Your task to perform on an android device: Show me popular games on the Play Store Image 0: 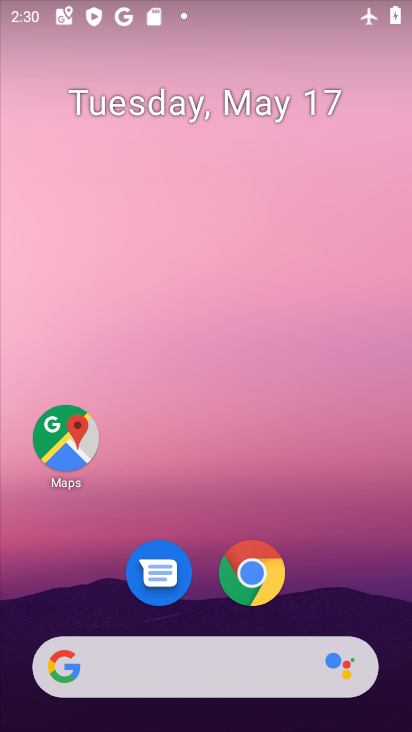
Step 0: drag from (346, 600) to (350, 102)
Your task to perform on an android device: Show me popular games on the Play Store Image 1: 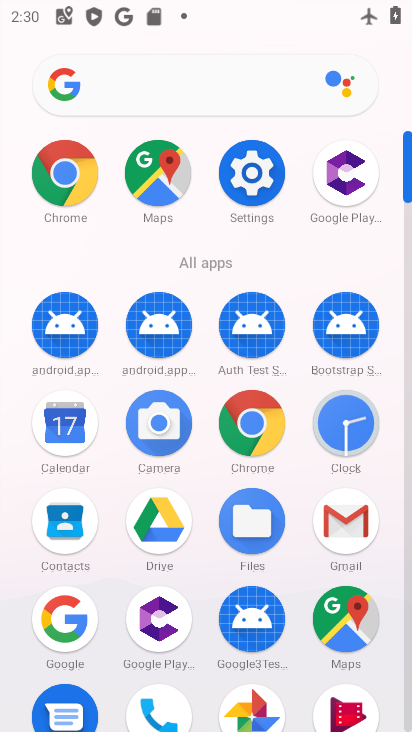
Step 1: drag from (212, 416) to (232, 238)
Your task to perform on an android device: Show me popular games on the Play Store Image 2: 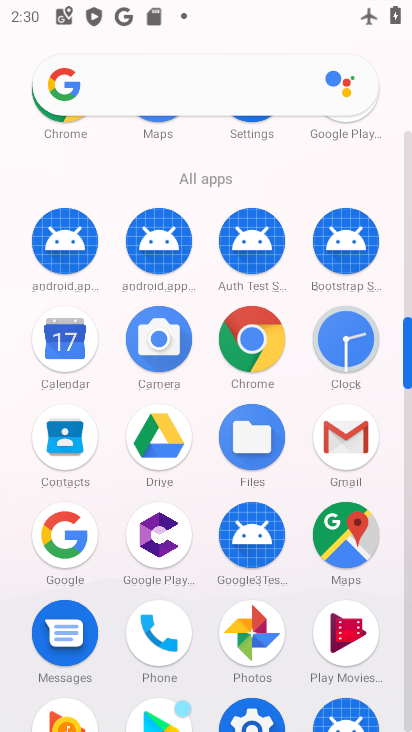
Step 2: drag from (191, 676) to (206, 292)
Your task to perform on an android device: Show me popular games on the Play Store Image 3: 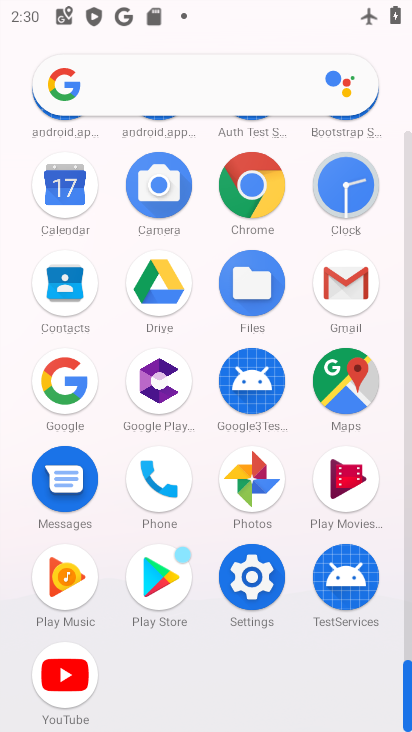
Step 3: click (167, 611)
Your task to perform on an android device: Show me popular games on the Play Store Image 4: 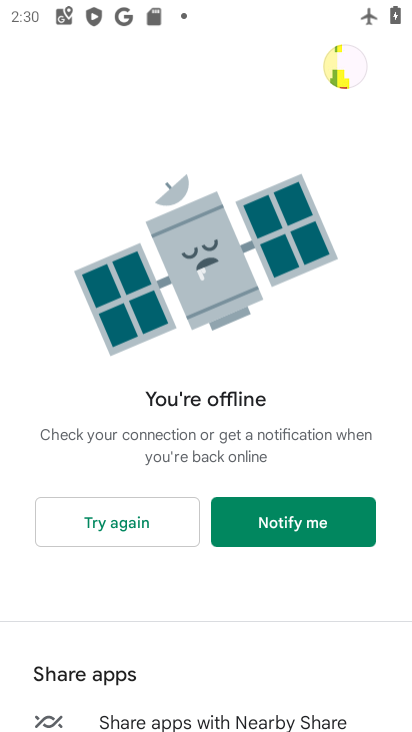
Step 4: task complete